Your task to perform on an android device: toggle translation in the chrome app Image 0: 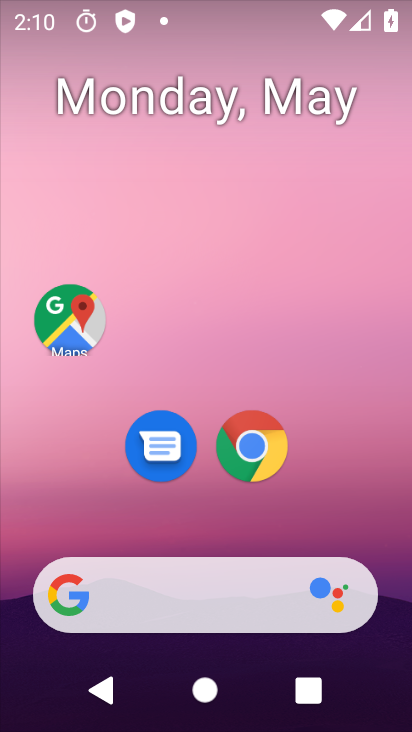
Step 0: click (262, 479)
Your task to perform on an android device: toggle translation in the chrome app Image 1: 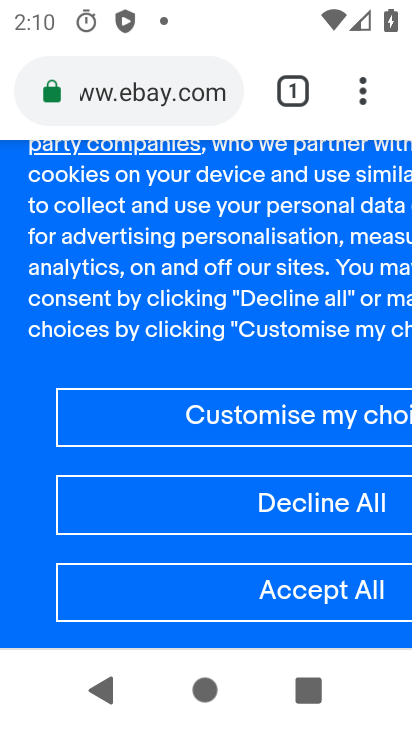
Step 1: drag from (365, 80) to (176, 476)
Your task to perform on an android device: toggle translation in the chrome app Image 2: 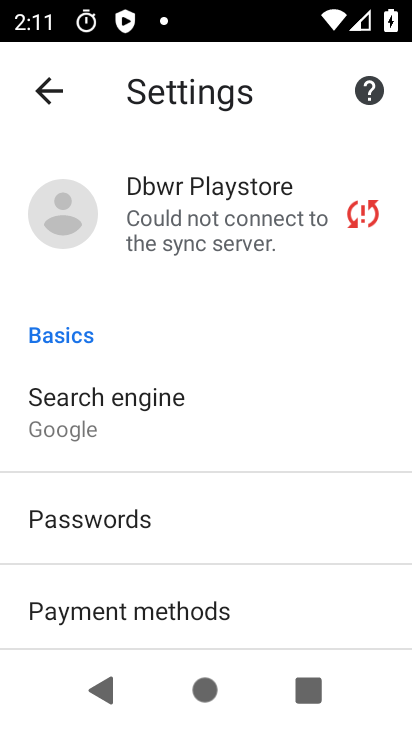
Step 2: drag from (203, 550) to (211, 2)
Your task to perform on an android device: toggle translation in the chrome app Image 3: 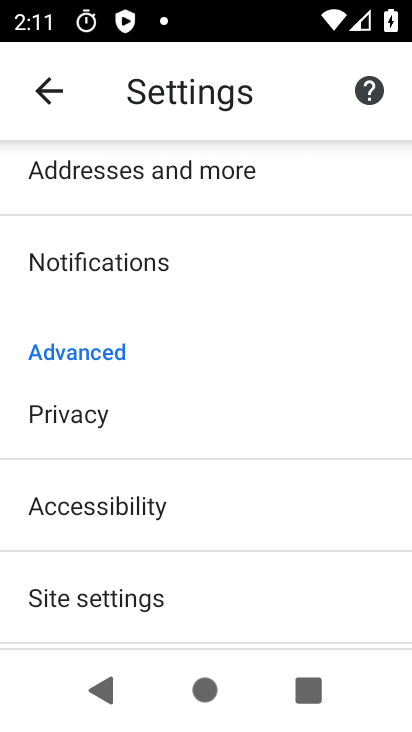
Step 3: drag from (238, 543) to (208, 282)
Your task to perform on an android device: toggle translation in the chrome app Image 4: 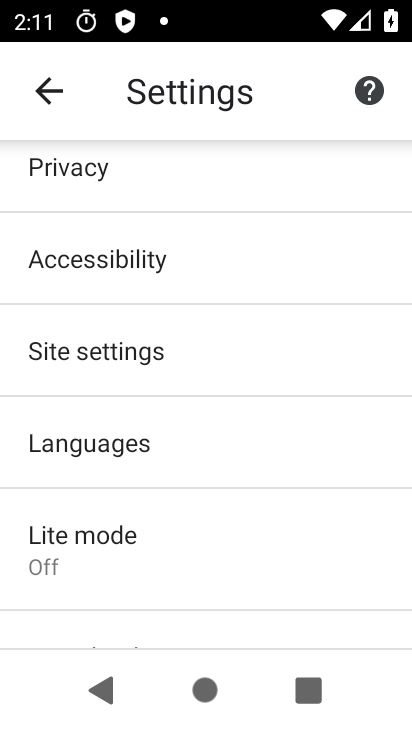
Step 4: click (133, 427)
Your task to perform on an android device: toggle translation in the chrome app Image 5: 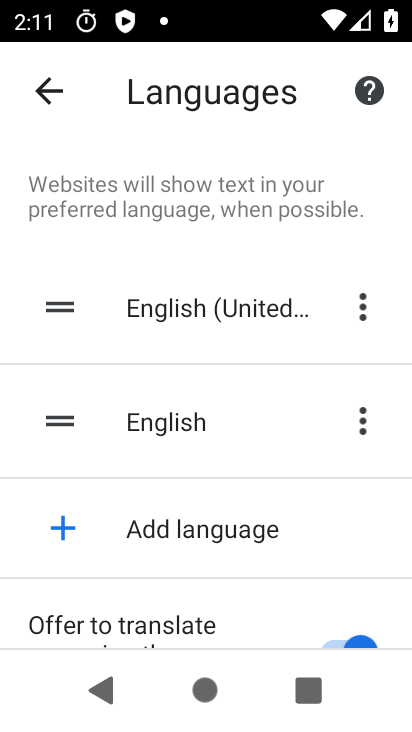
Step 5: drag from (364, 635) to (352, 552)
Your task to perform on an android device: toggle translation in the chrome app Image 6: 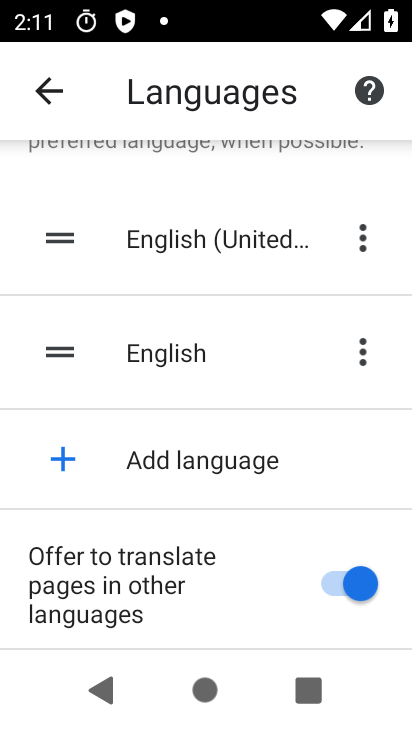
Step 6: click (346, 584)
Your task to perform on an android device: toggle translation in the chrome app Image 7: 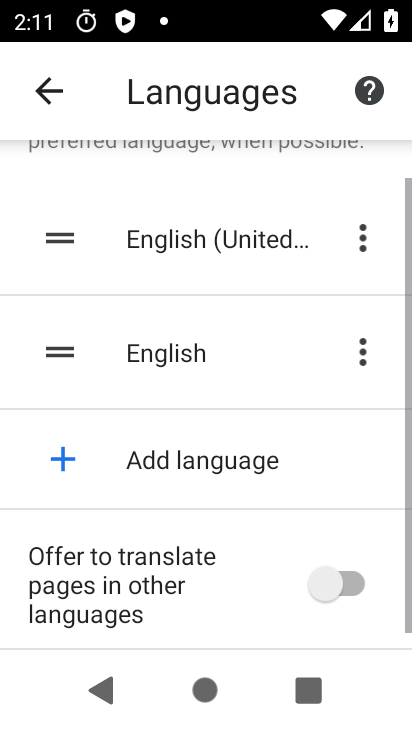
Step 7: task complete